Your task to perform on an android device: What's the price of the LG TV? Image 0: 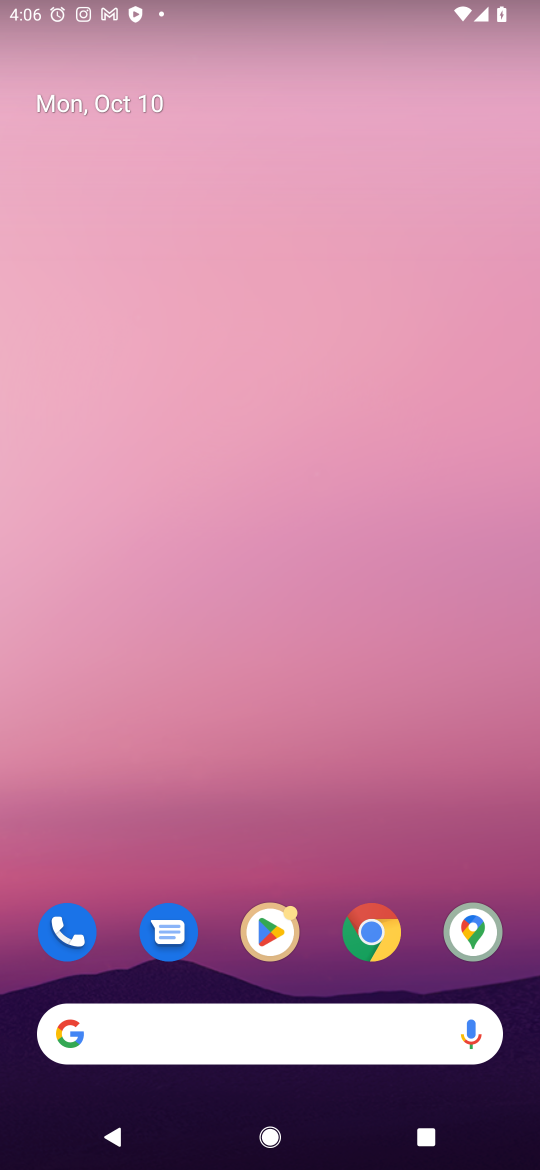
Step 0: press home button
Your task to perform on an android device: What's the price of the LG TV? Image 1: 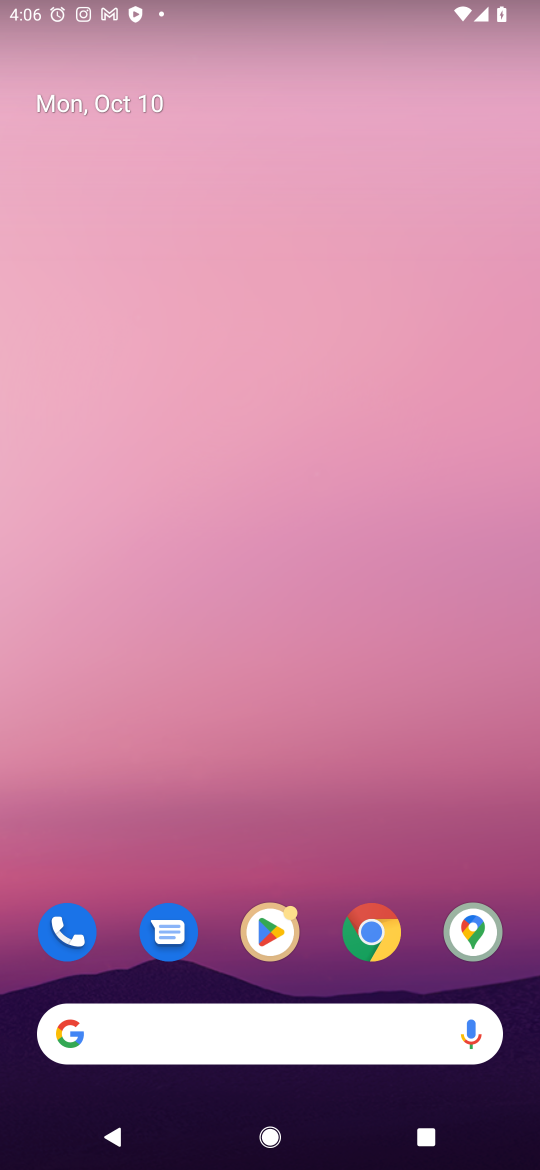
Step 1: click (271, 1025)
Your task to perform on an android device: What's the price of the LG TV? Image 2: 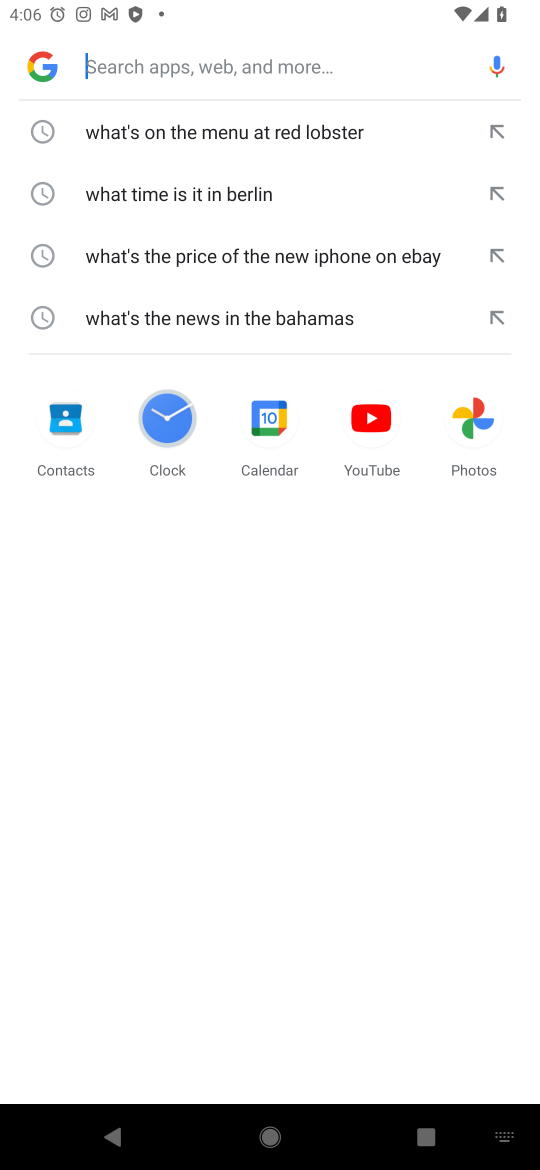
Step 2: type "What's the price of the LG TV"
Your task to perform on an android device: What's the price of the LG TV? Image 3: 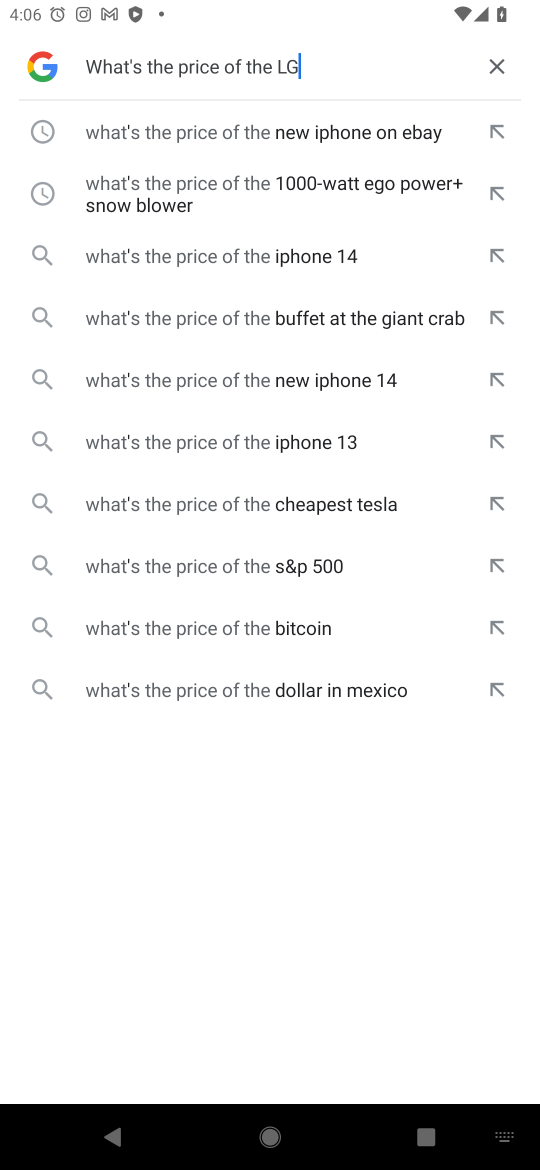
Step 3: press enter
Your task to perform on an android device: What's the price of the LG TV? Image 4: 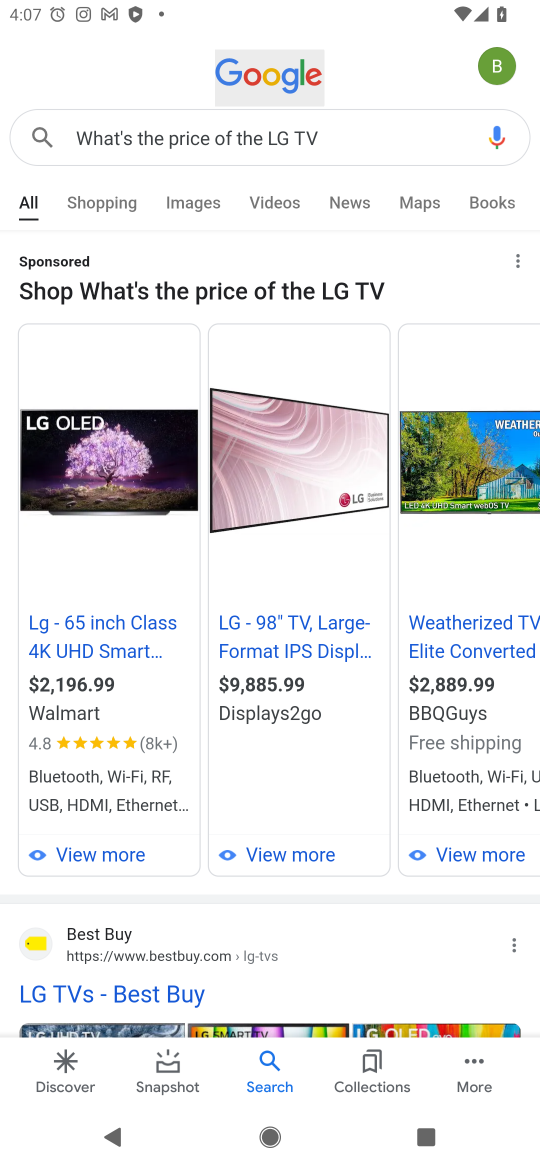
Step 4: task complete